Your task to perform on an android device: Go to calendar. Show me events next week Image 0: 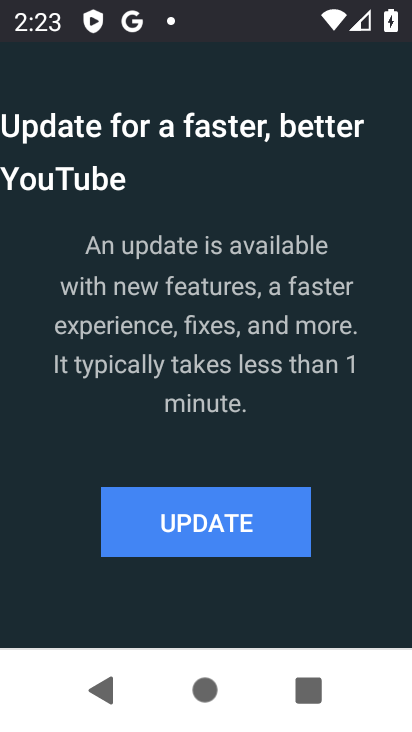
Step 0: press home button
Your task to perform on an android device: Go to calendar. Show me events next week Image 1: 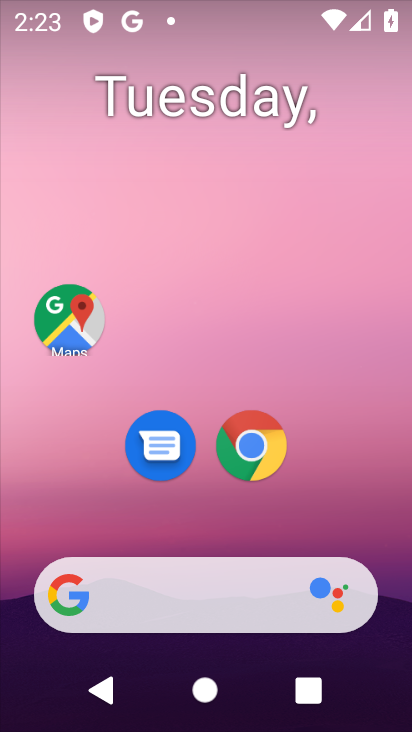
Step 1: drag from (158, 676) to (131, 13)
Your task to perform on an android device: Go to calendar. Show me events next week Image 2: 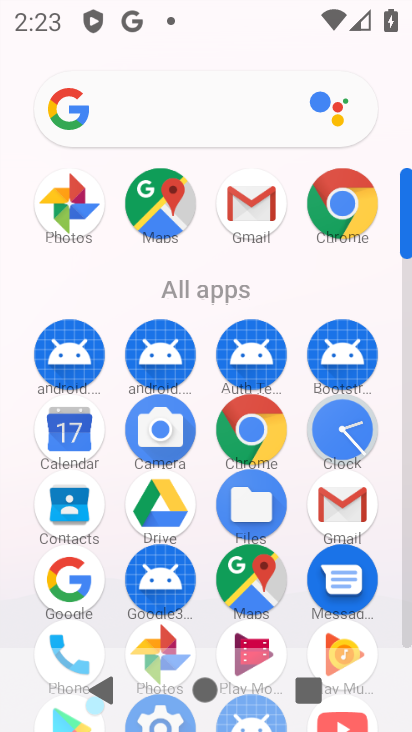
Step 2: click (79, 435)
Your task to perform on an android device: Go to calendar. Show me events next week Image 3: 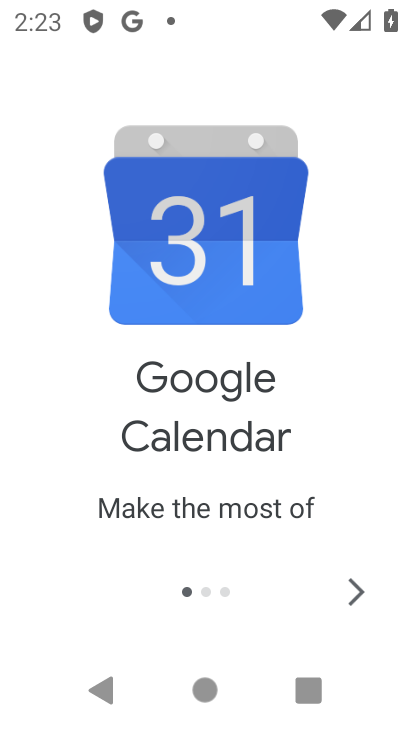
Step 3: click (368, 594)
Your task to perform on an android device: Go to calendar. Show me events next week Image 4: 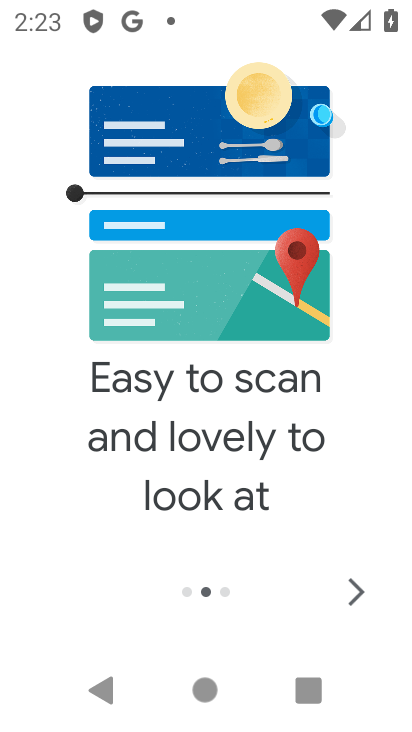
Step 4: click (368, 594)
Your task to perform on an android device: Go to calendar. Show me events next week Image 5: 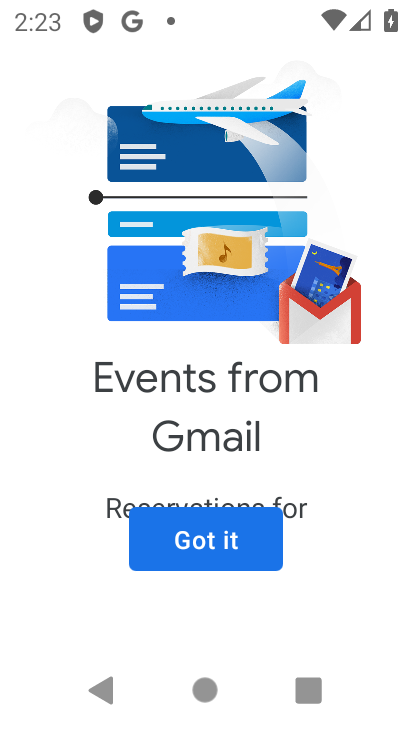
Step 5: click (208, 521)
Your task to perform on an android device: Go to calendar. Show me events next week Image 6: 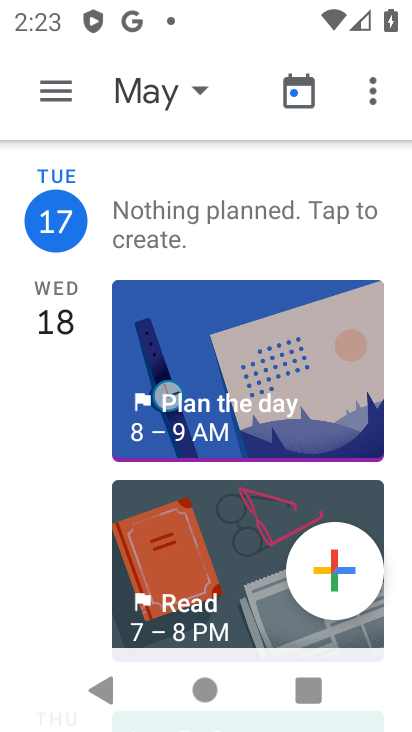
Step 6: click (146, 92)
Your task to perform on an android device: Go to calendar. Show me events next week Image 7: 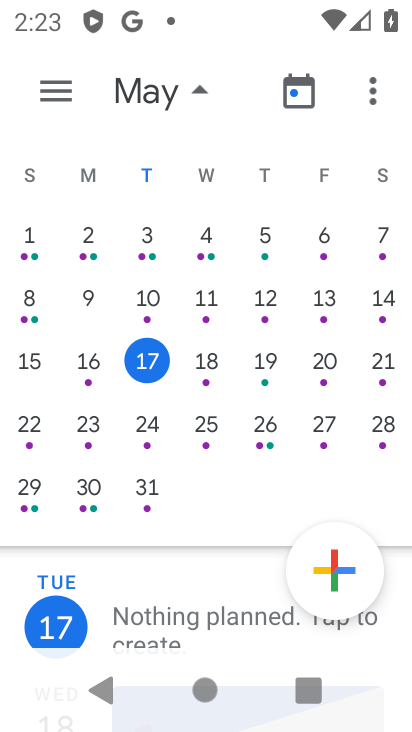
Step 7: click (32, 423)
Your task to perform on an android device: Go to calendar. Show me events next week Image 8: 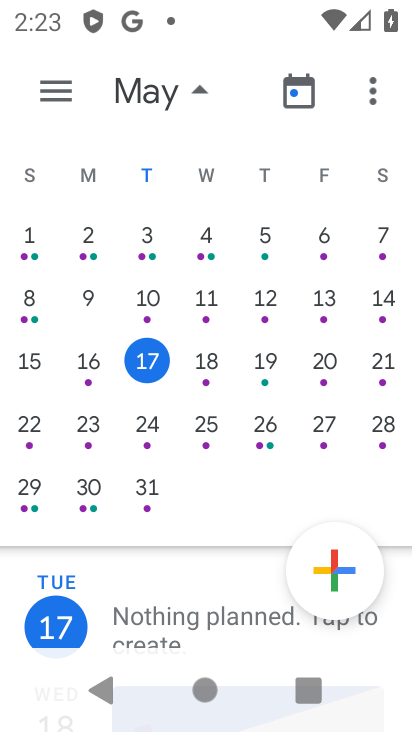
Step 8: click (40, 431)
Your task to perform on an android device: Go to calendar. Show me events next week Image 9: 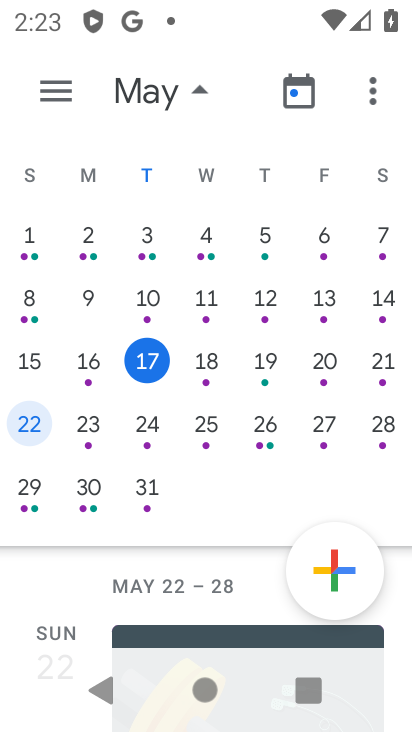
Step 9: task complete